Your task to perform on an android device: toggle javascript in the chrome app Image 0: 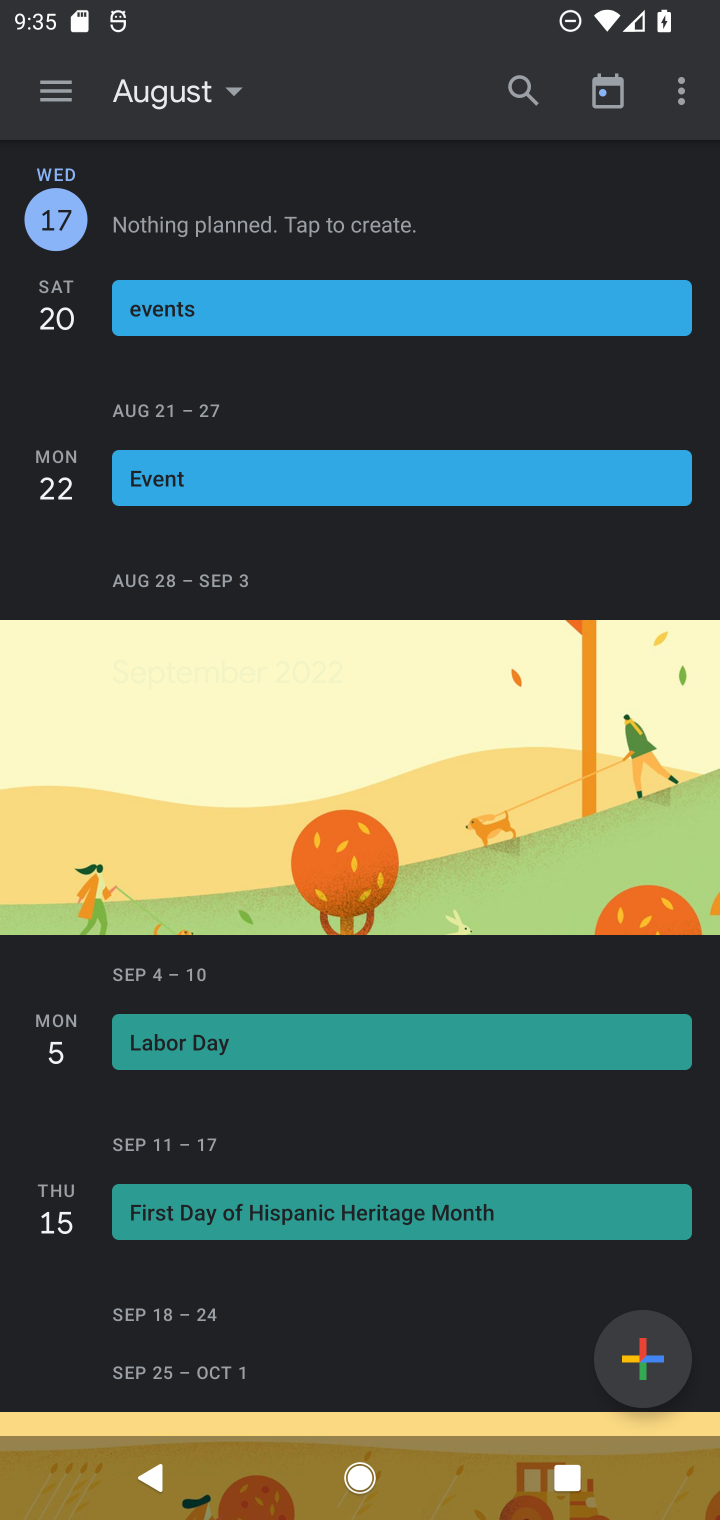
Step 0: task complete